Your task to perform on an android device: check android version Image 0: 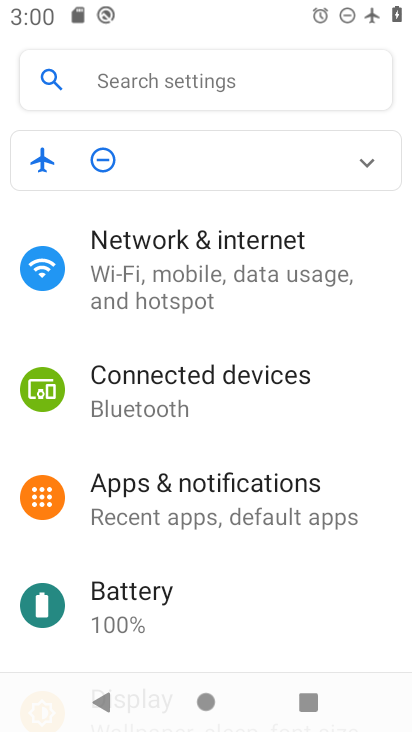
Step 0: drag from (268, 612) to (303, 134)
Your task to perform on an android device: check android version Image 1: 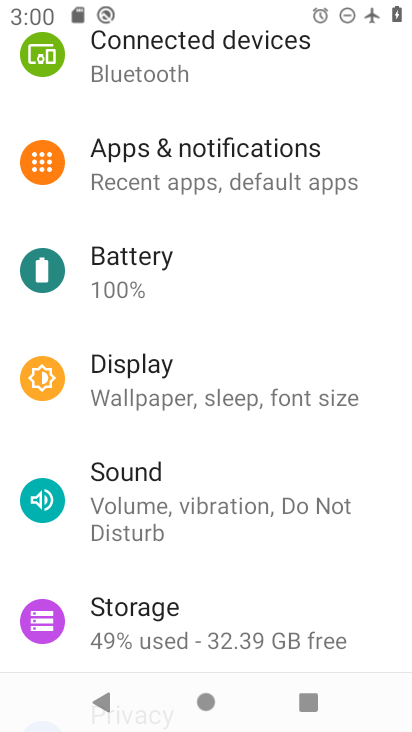
Step 1: drag from (302, 575) to (296, 132)
Your task to perform on an android device: check android version Image 2: 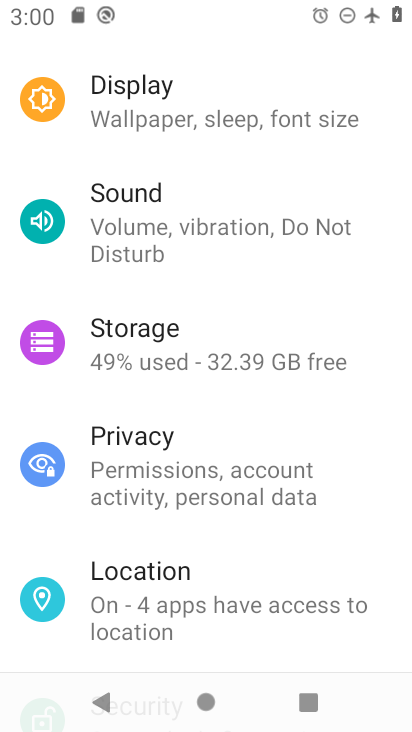
Step 2: drag from (315, 532) to (328, 104)
Your task to perform on an android device: check android version Image 3: 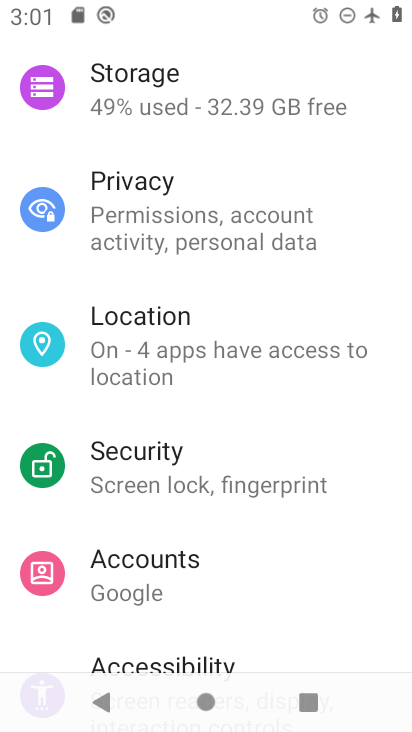
Step 3: drag from (311, 476) to (300, 61)
Your task to perform on an android device: check android version Image 4: 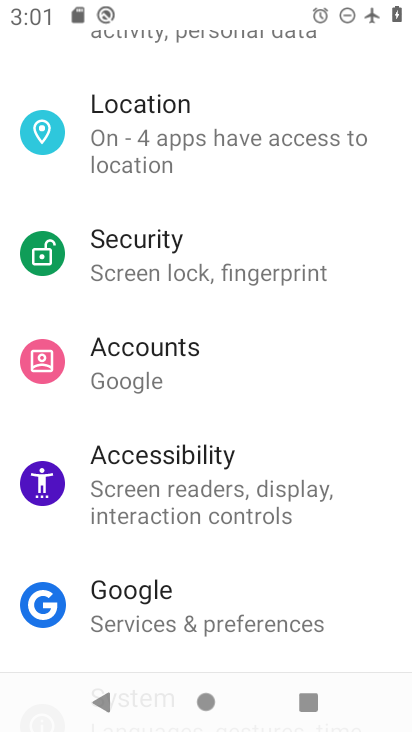
Step 4: drag from (299, 483) to (315, 108)
Your task to perform on an android device: check android version Image 5: 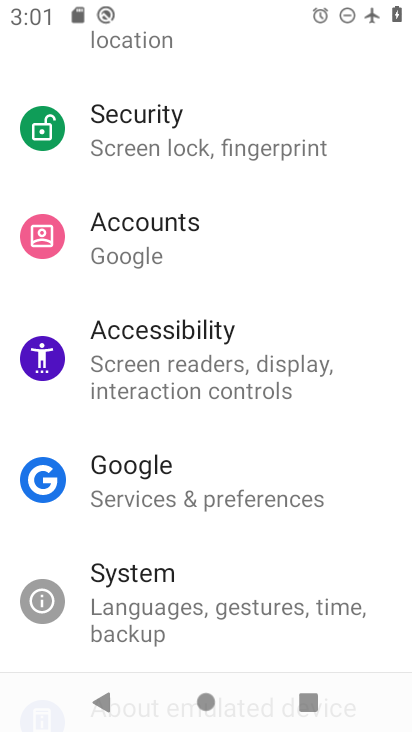
Step 5: drag from (305, 521) to (313, 100)
Your task to perform on an android device: check android version Image 6: 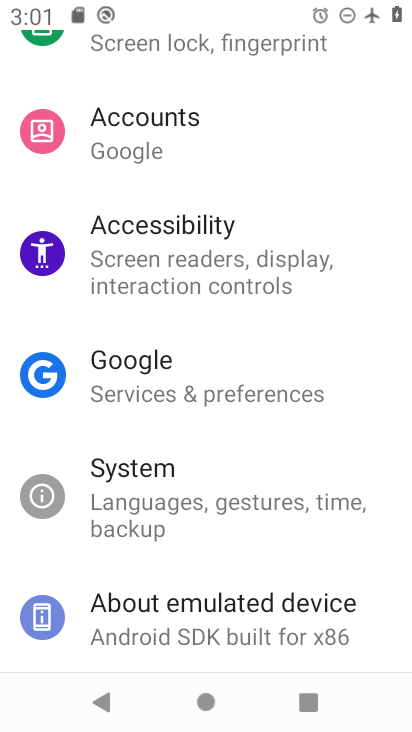
Step 6: drag from (311, 603) to (321, 199)
Your task to perform on an android device: check android version Image 7: 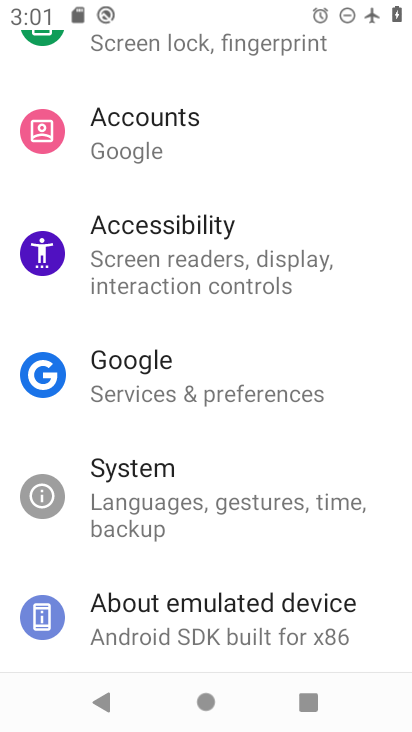
Step 7: click (233, 599)
Your task to perform on an android device: check android version Image 8: 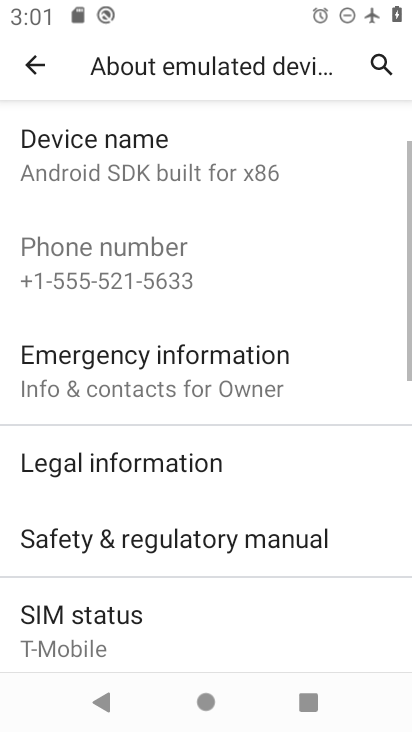
Step 8: drag from (300, 517) to (321, 85)
Your task to perform on an android device: check android version Image 9: 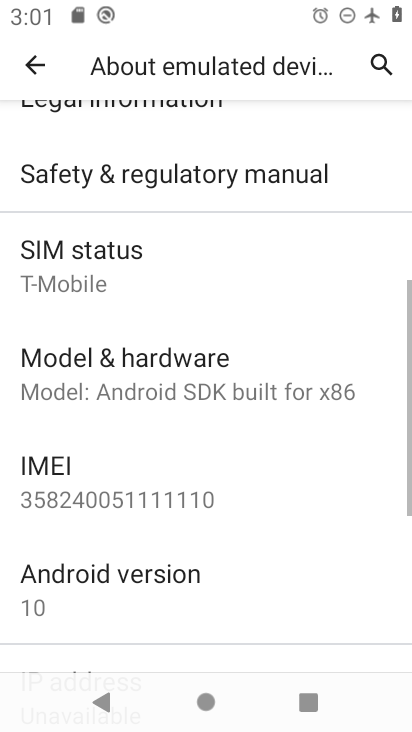
Step 9: drag from (262, 457) to (315, 199)
Your task to perform on an android device: check android version Image 10: 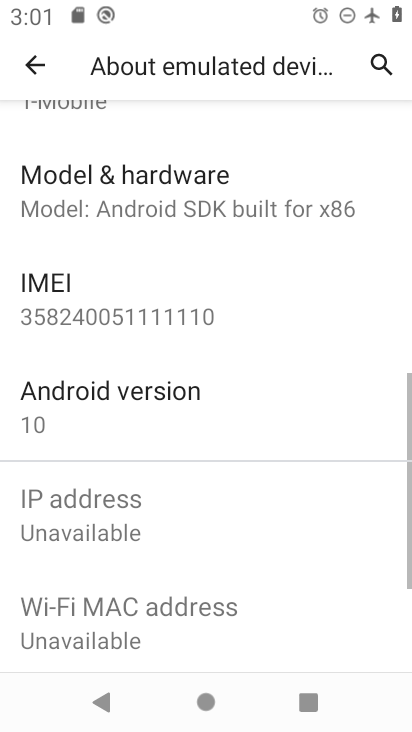
Step 10: click (200, 393)
Your task to perform on an android device: check android version Image 11: 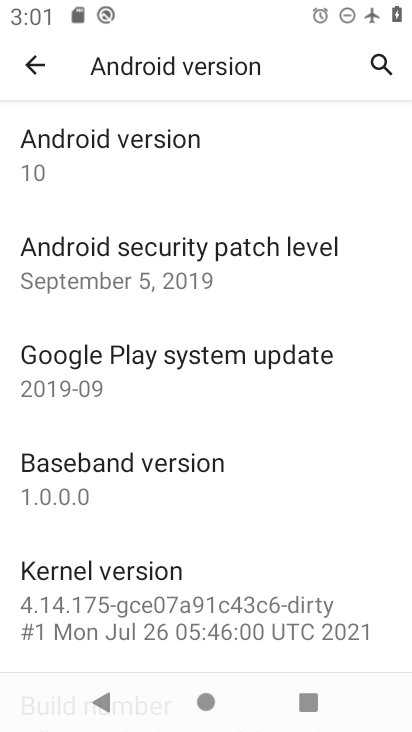
Step 11: task complete